Your task to perform on an android device: open the mobile data screen to see how much data has been used Image 0: 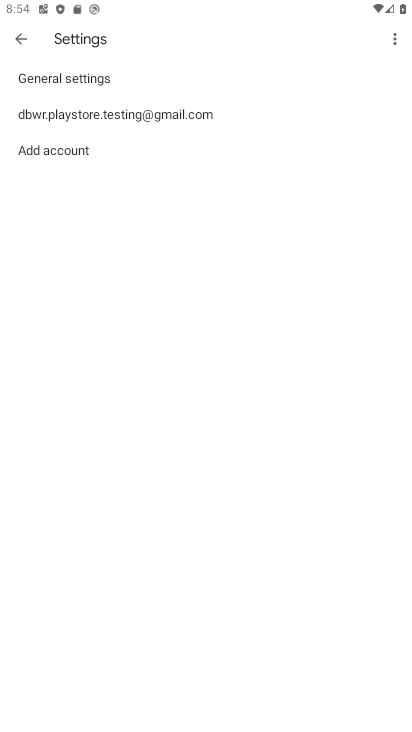
Step 0: press home button
Your task to perform on an android device: open the mobile data screen to see how much data has been used Image 1: 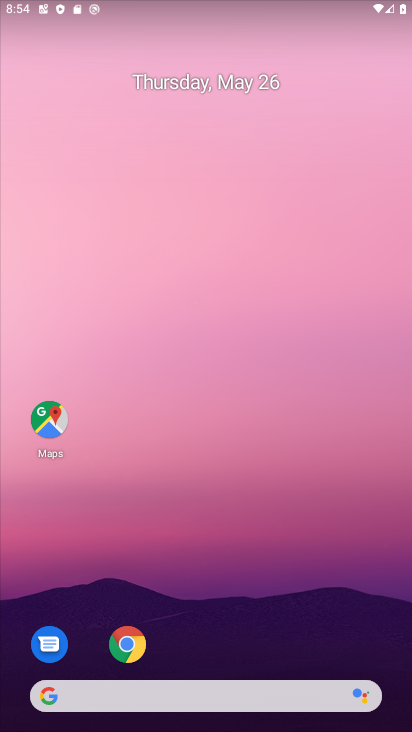
Step 1: drag from (183, 594) to (241, 98)
Your task to perform on an android device: open the mobile data screen to see how much data has been used Image 2: 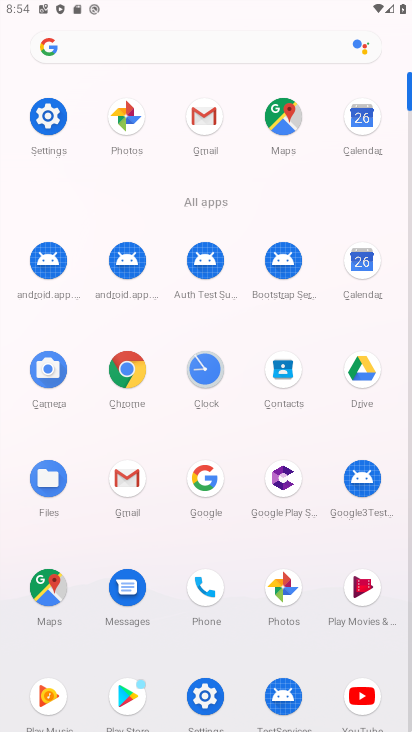
Step 2: click (43, 117)
Your task to perform on an android device: open the mobile data screen to see how much data has been used Image 3: 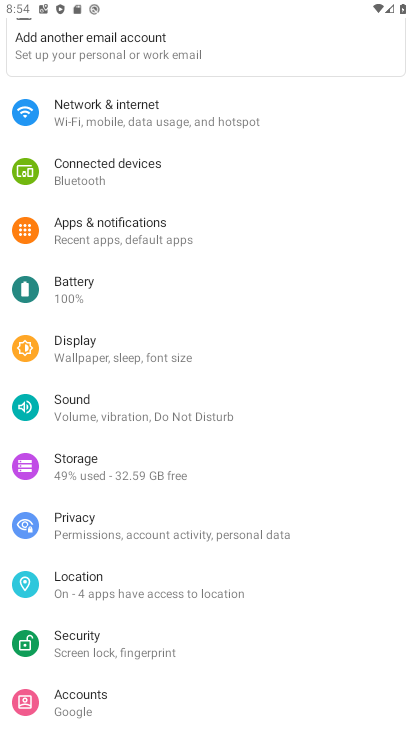
Step 3: click (188, 120)
Your task to perform on an android device: open the mobile data screen to see how much data has been used Image 4: 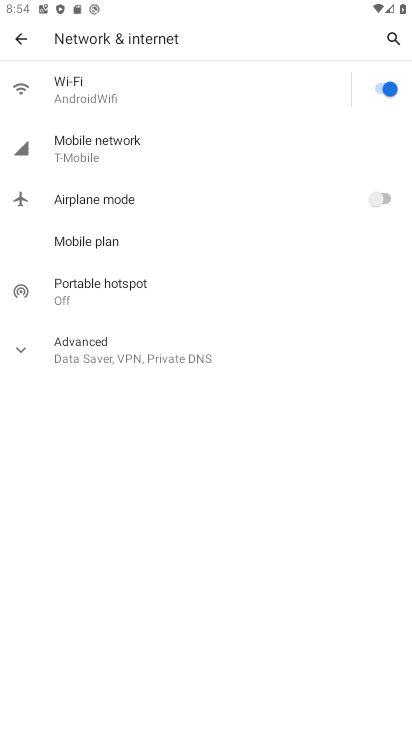
Step 4: click (180, 149)
Your task to perform on an android device: open the mobile data screen to see how much data has been used Image 5: 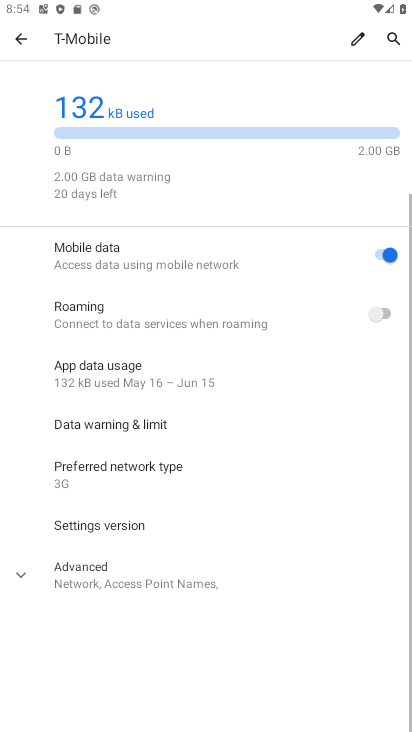
Step 5: click (88, 376)
Your task to perform on an android device: open the mobile data screen to see how much data has been used Image 6: 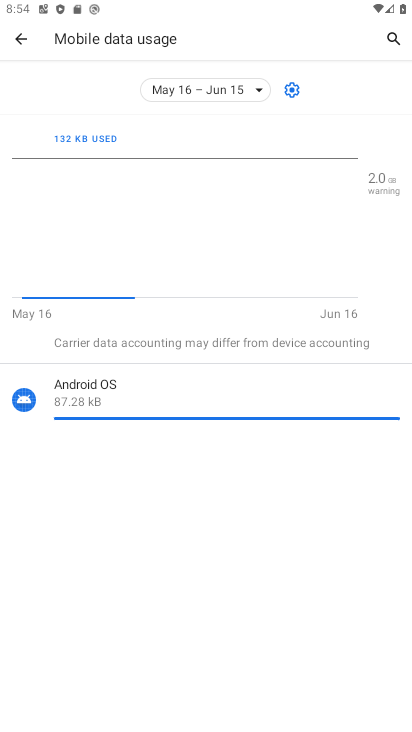
Step 6: task complete